Your task to perform on an android device: delete browsing data in the chrome app Image 0: 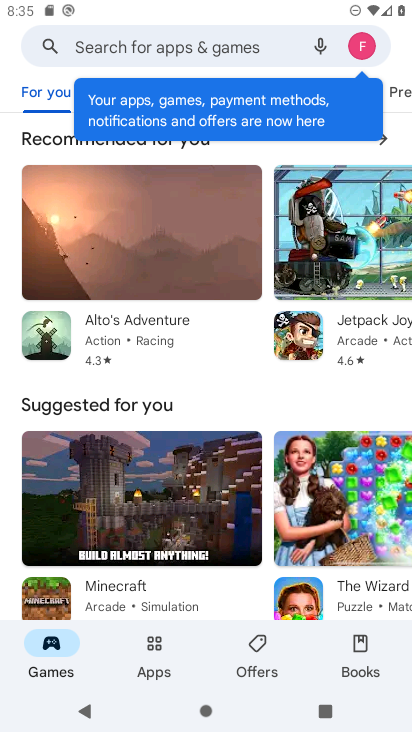
Step 0: press home button
Your task to perform on an android device: delete browsing data in the chrome app Image 1: 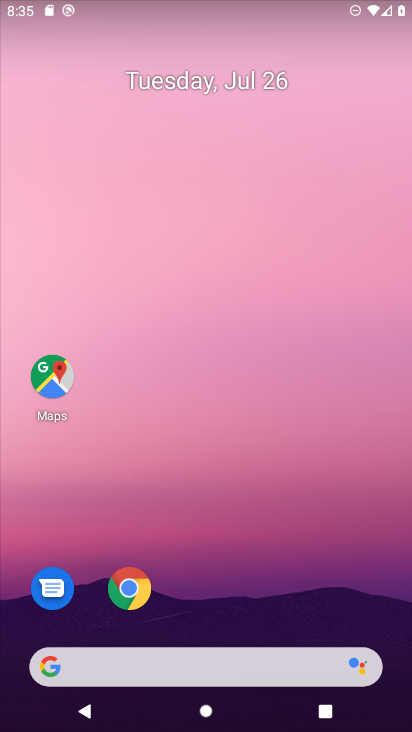
Step 1: click (140, 589)
Your task to perform on an android device: delete browsing data in the chrome app Image 2: 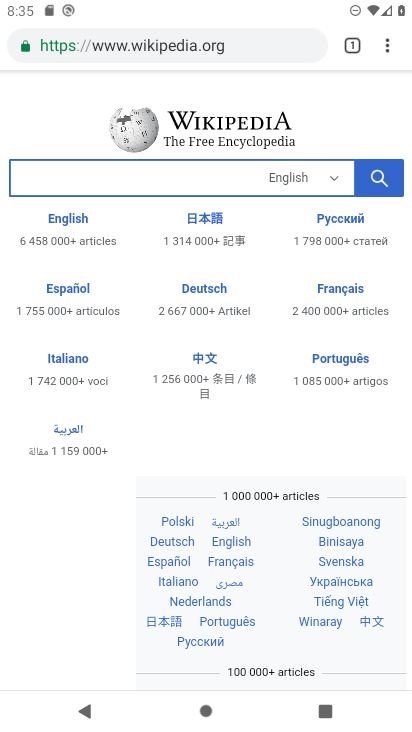
Step 2: drag from (389, 44) to (275, 549)
Your task to perform on an android device: delete browsing data in the chrome app Image 3: 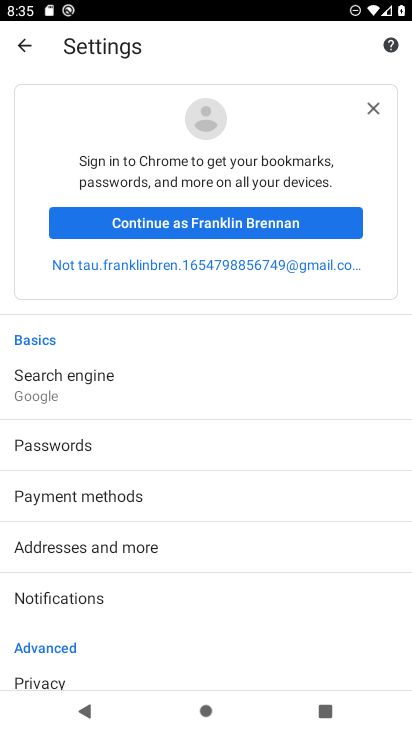
Step 3: drag from (205, 577) to (200, 313)
Your task to perform on an android device: delete browsing data in the chrome app Image 4: 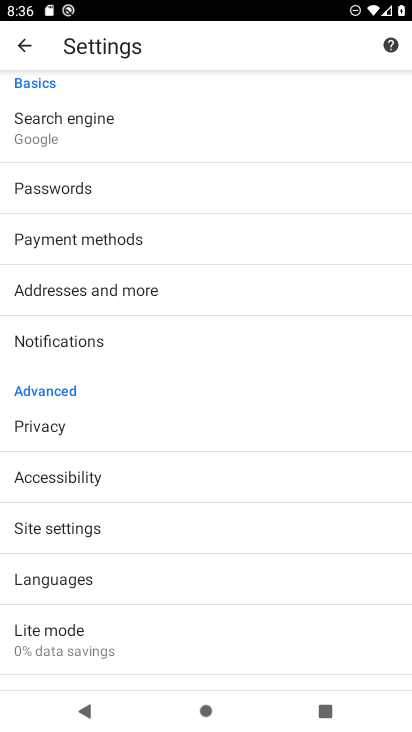
Step 4: click (28, 432)
Your task to perform on an android device: delete browsing data in the chrome app Image 5: 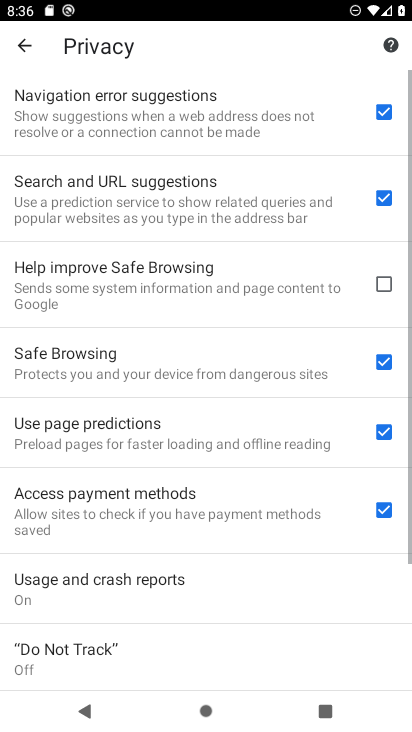
Step 5: drag from (194, 552) to (181, 241)
Your task to perform on an android device: delete browsing data in the chrome app Image 6: 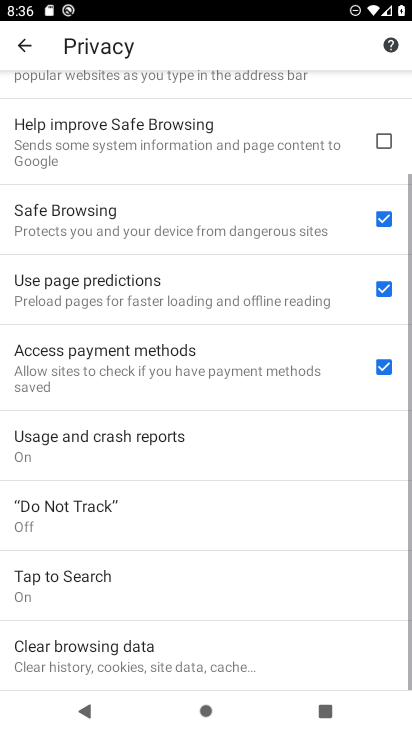
Step 6: click (102, 649)
Your task to perform on an android device: delete browsing data in the chrome app Image 7: 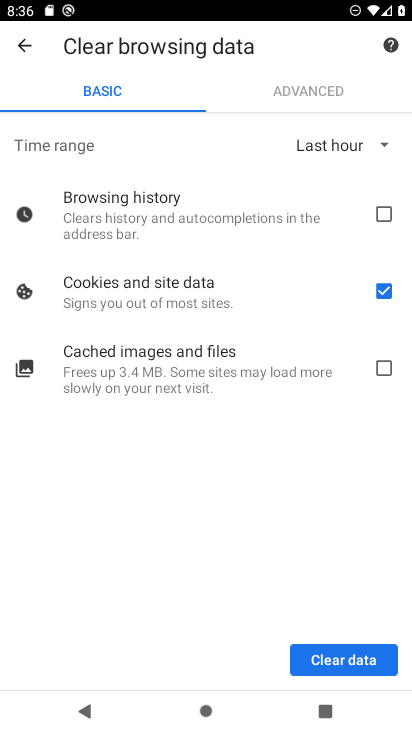
Step 7: click (380, 220)
Your task to perform on an android device: delete browsing data in the chrome app Image 8: 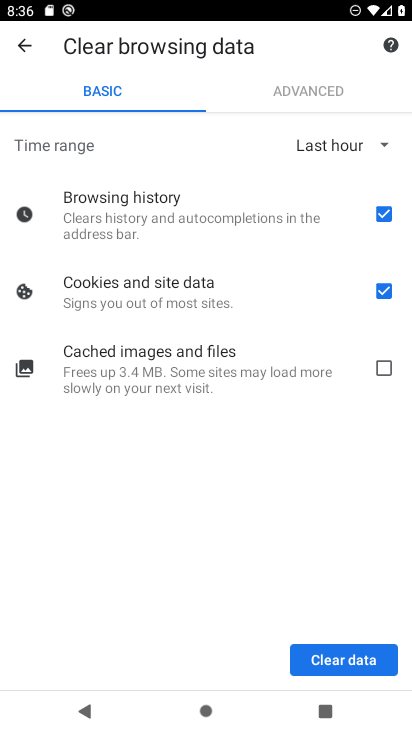
Step 8: click (387, 295)
Your task to perform on an android device: delete browsing data in the chrome app Image 9: 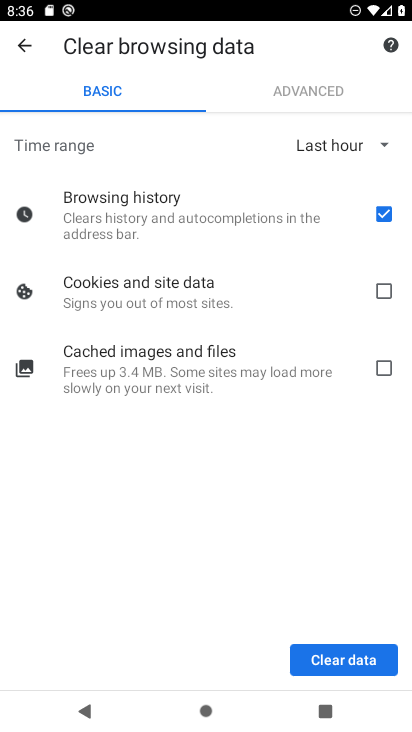
Step 9: click (332, 667)
Your task to perform on an android device: delete browsing data in the chrome app Image 10: 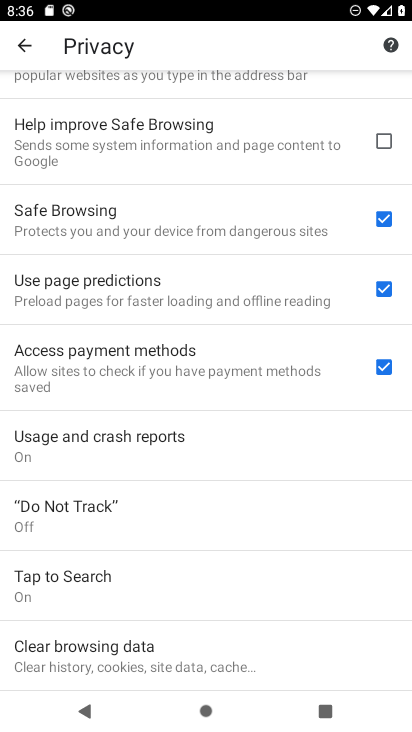
Step 10: task complete